Your task to perform on an android device: open app "Indeed Job Search" (install if not already installed) and go to login screen Image 0: 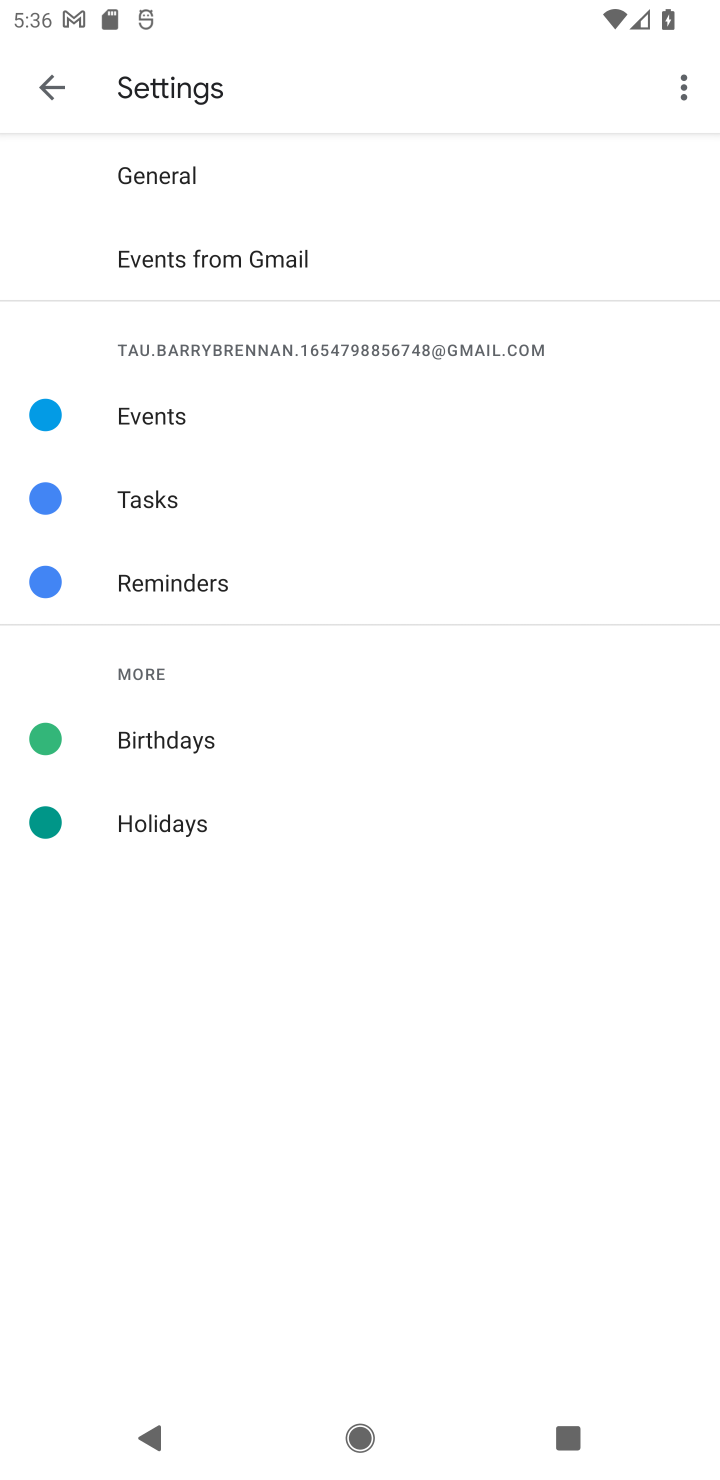
Step 0: press home button
Your task to perform on an android device: open app "Indeed Job Search" (install if not already installed) and go to login screen Image 1: 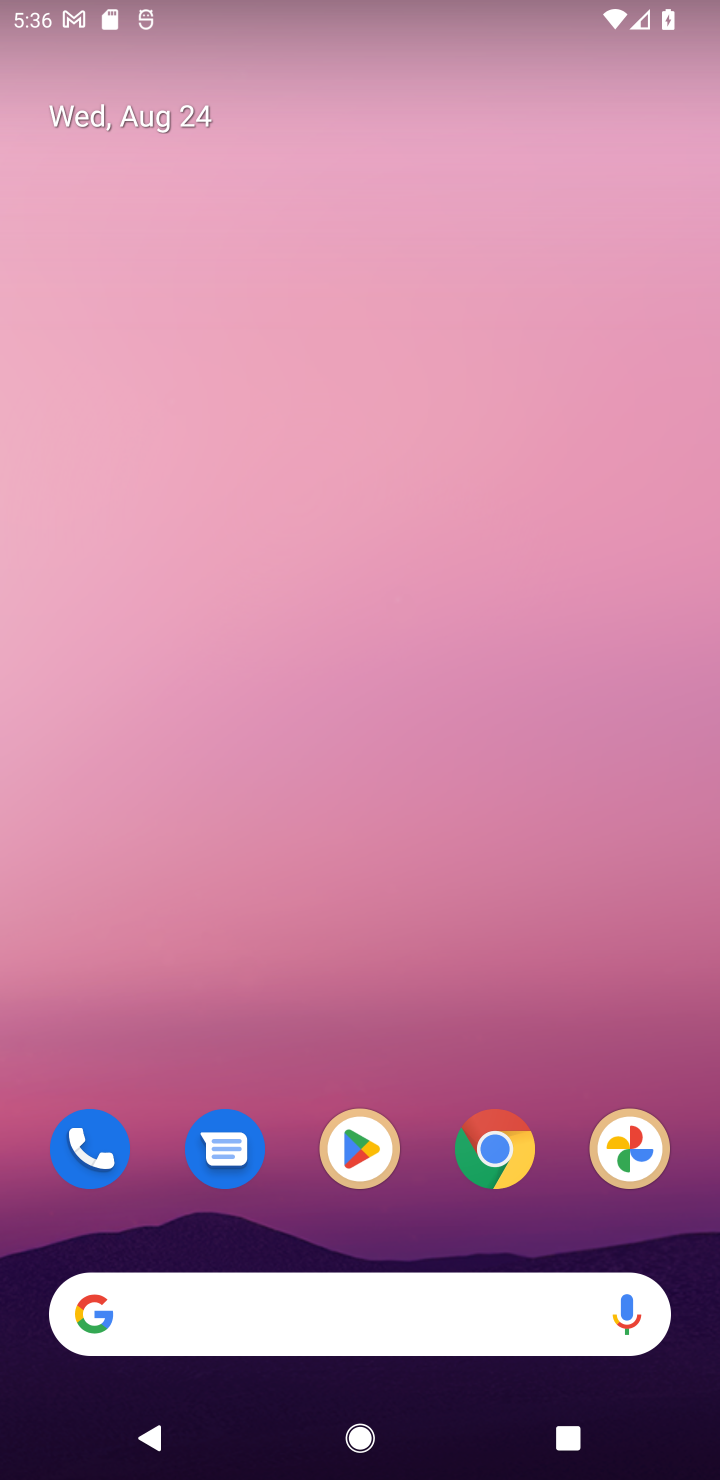
Step 1: click (363, 1142)
Your task to perform on an android device: open app "Indeed Job Search" (install if not already installed) and go to login screen Image 2: 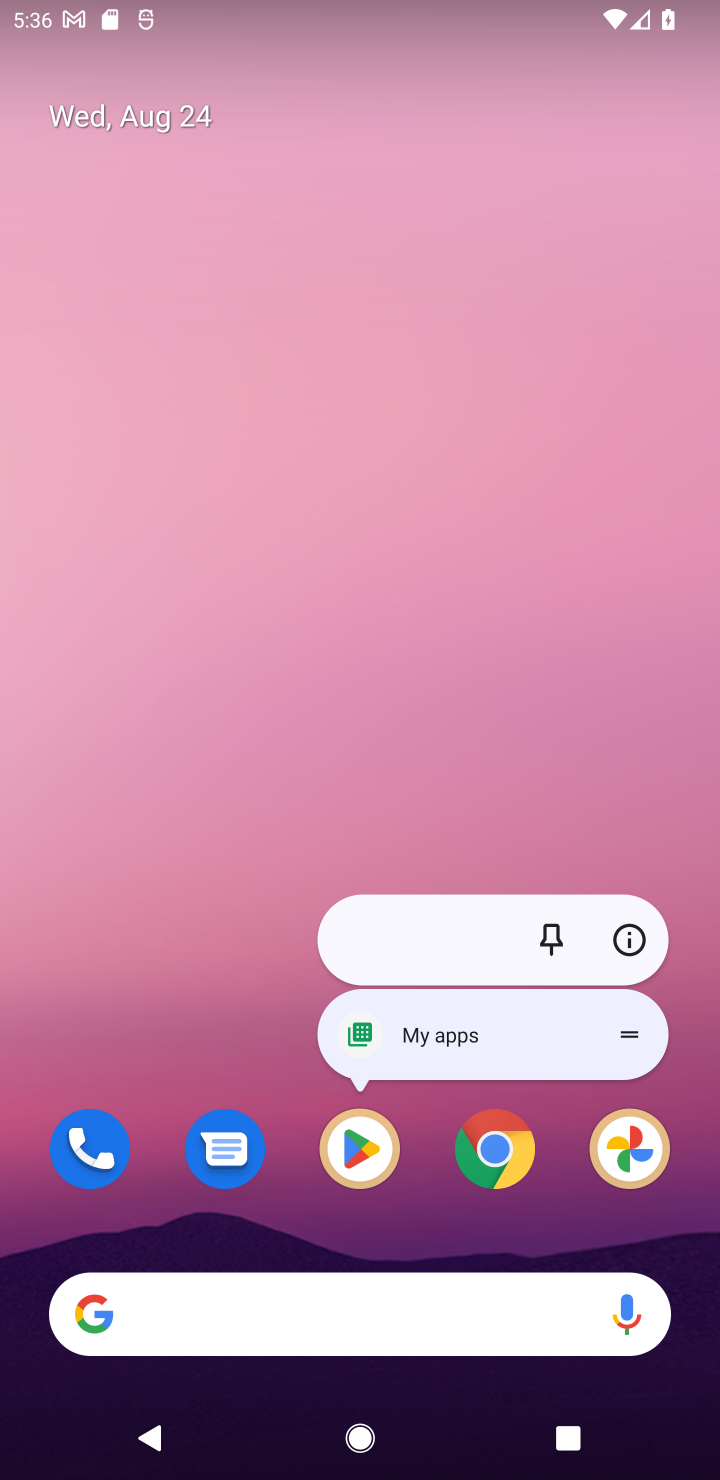
Step 2: click (357, 1137)
Your task to perform on an android device: open app "Indeed Job Search" (install if not already installed) and go to login screen Image 3: 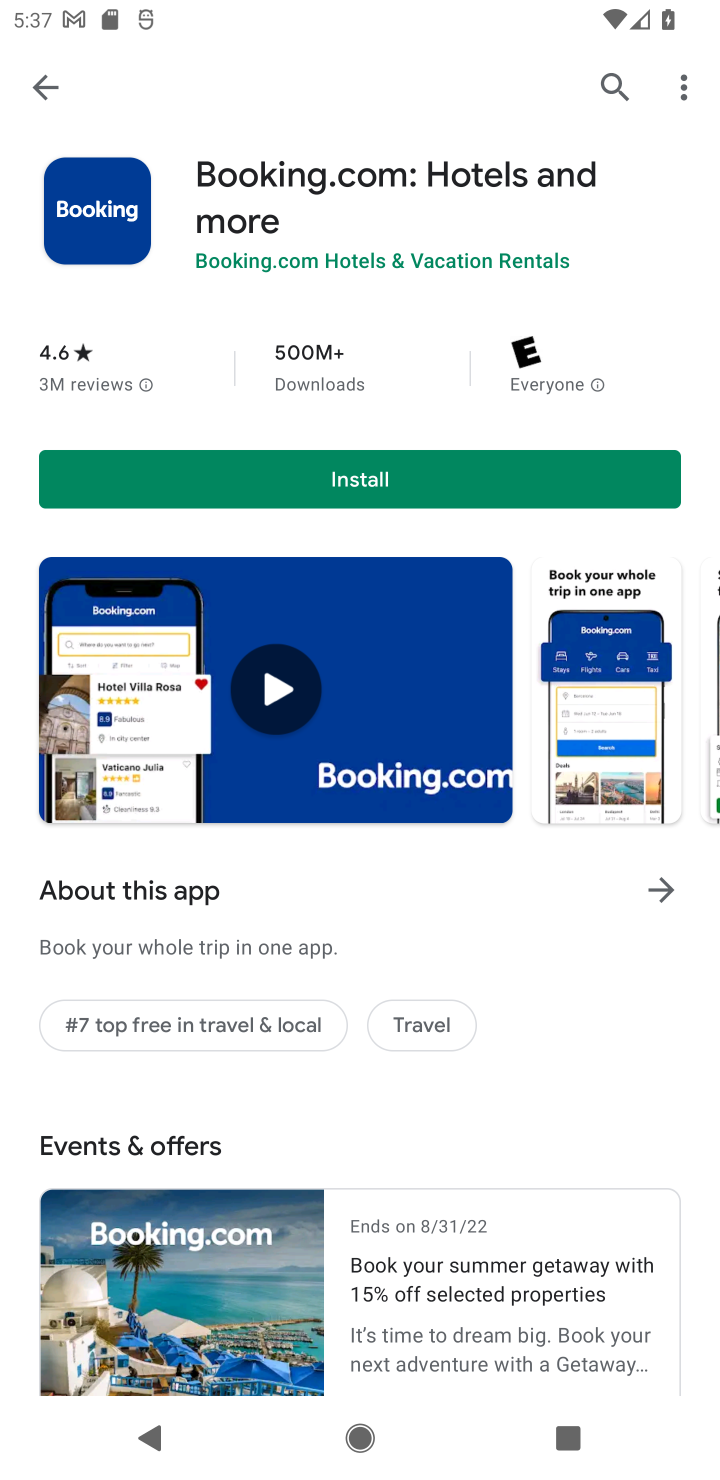
Step 3: click (603, 77)
Your task to perform on an android device: open app "Indeed Job Search" (install if not already installed) and go to login screen Image 4: 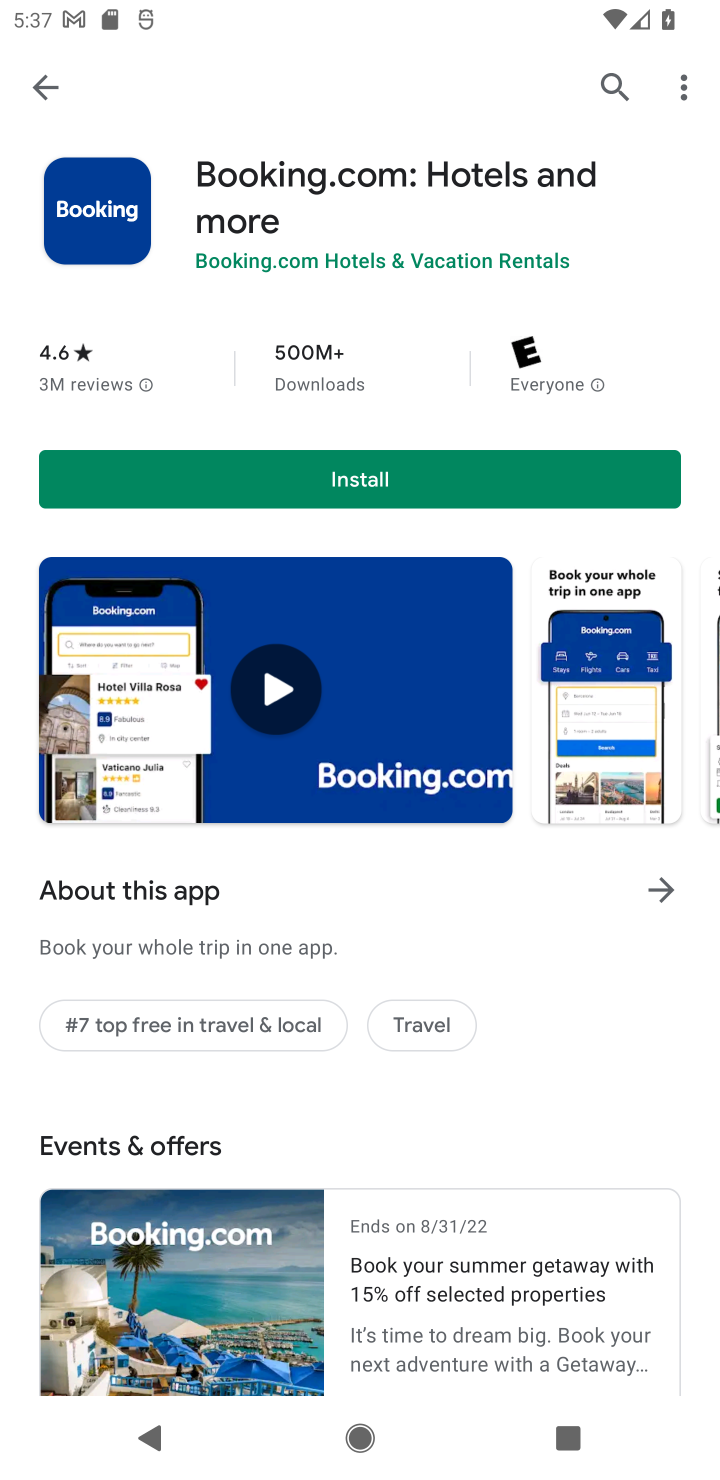
Step 4: click (591, 86)
Your task to perform on an android device: open app "Indeed Job Search" (install if not already installed) and go to login screen Image 5: 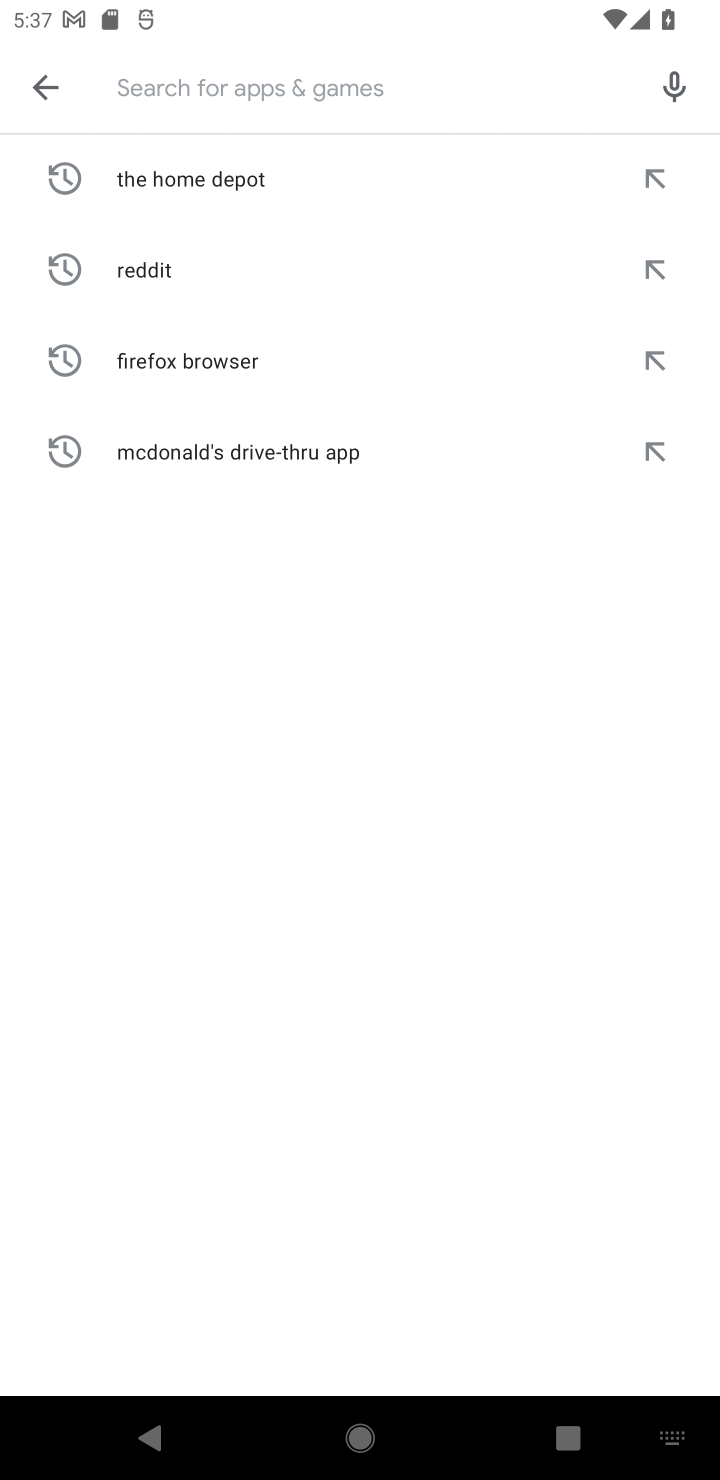
Step 5: type "Indeed Job Search"
Your task to perform on an android device: open app "Indeed Job Search" (install if not already installed) and go to login screen Image 6: 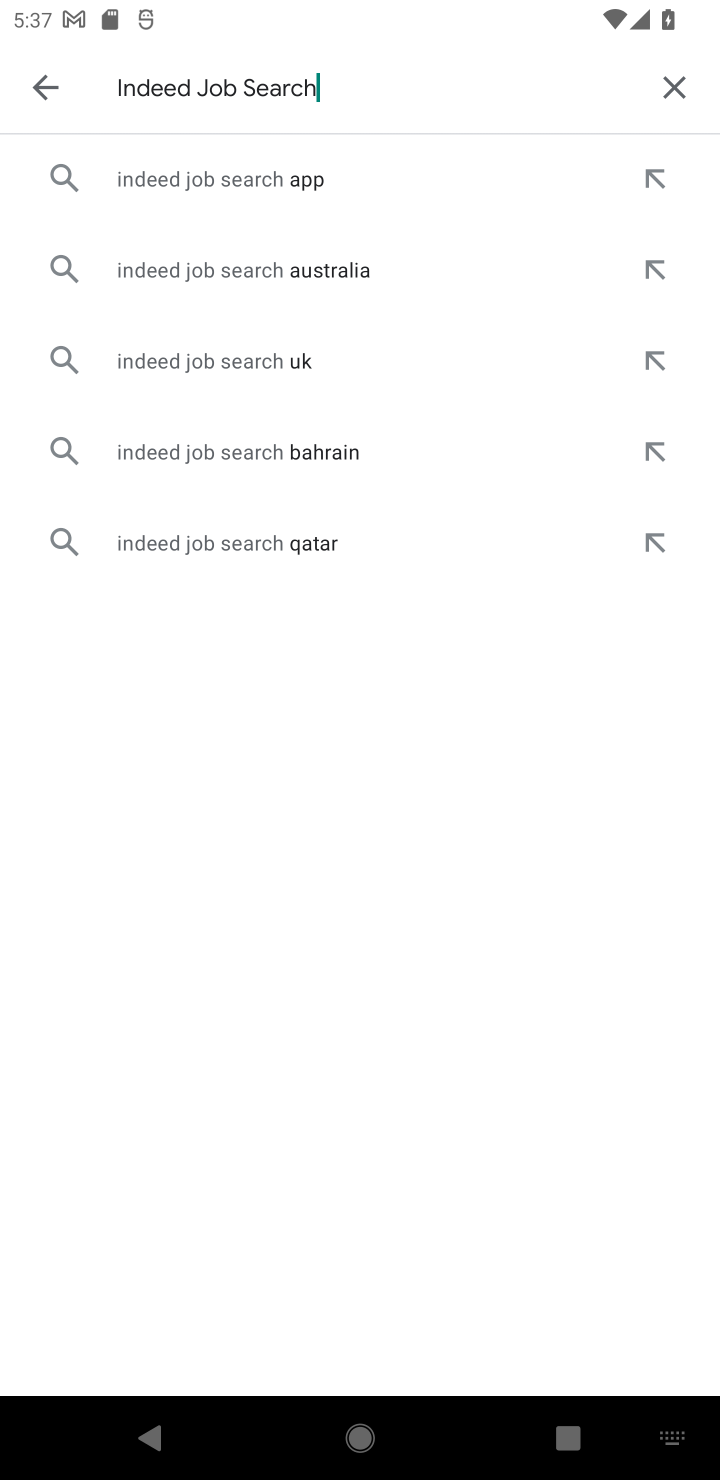
Step 6: click (213, 189)
Your task to perform on an android device: open app "Indeed Job Search" (install if not already installed) and go to login screen Image 7: 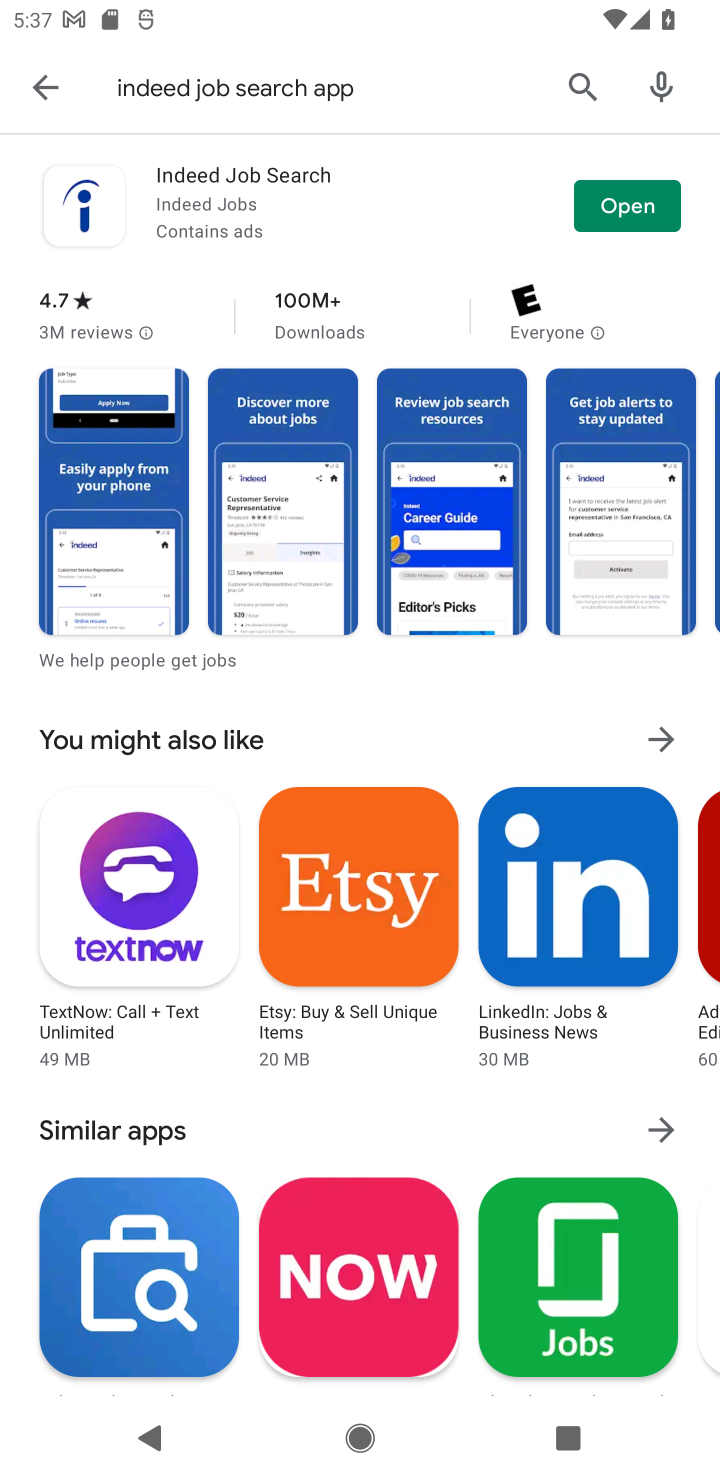
Step 7: click (662, 199)
Your task to perform on an android device: open app "Indeed Job Search" (install if not already installed) and go to login screen Image 8: 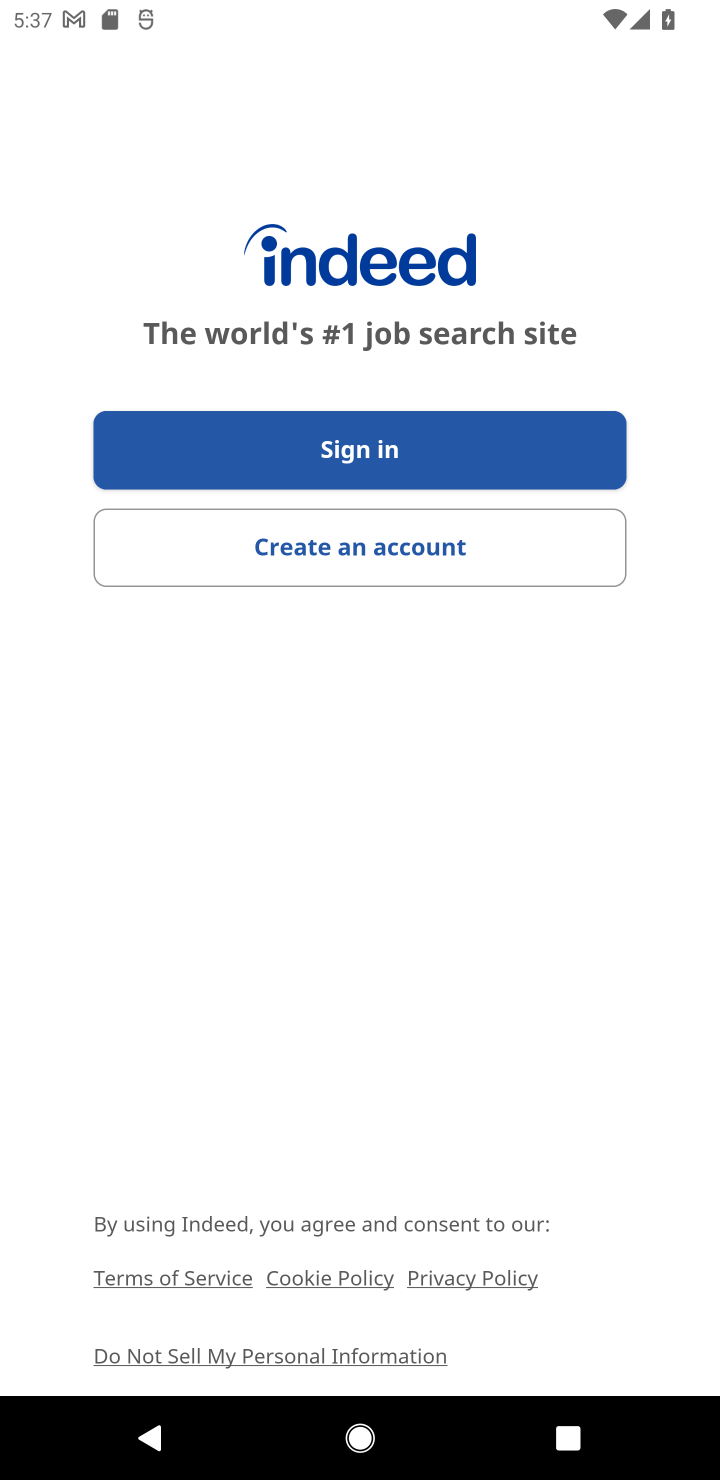
Step 8: task complete